Your task to perform on an android device: Show me popular videos on Youtube Image 0: 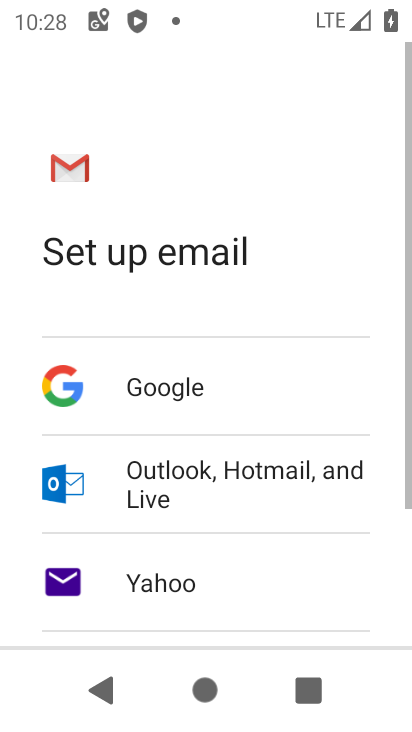
Step 0: press home button
Your task to perform on an android device: Show me popular videos on Youtube Image 1: 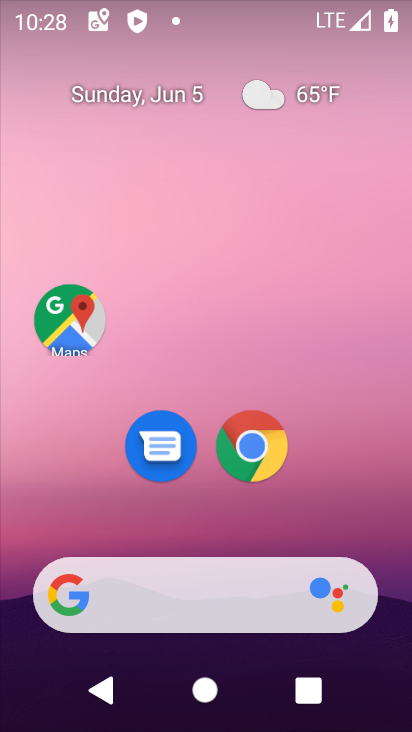
Step 1: drag from (230, 530) to (195, 87)
Your task to perform on an android device: Show me popular videos on Youtube Image 2: 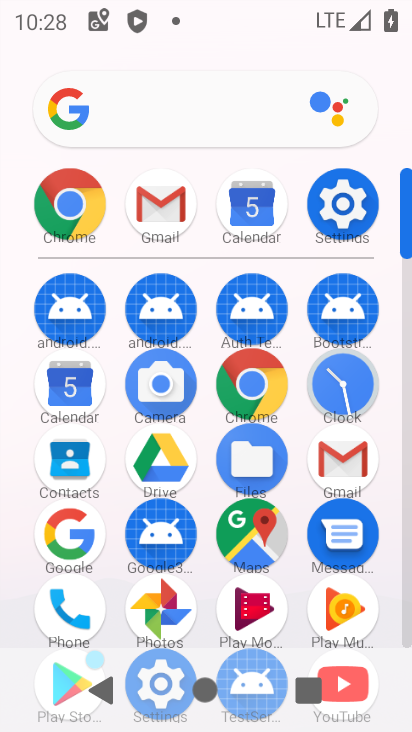
Step 2: drag from (282, 500) to (235, 148)
Your task to perform on an android device: Show me popular videos on Youtube Image 3: 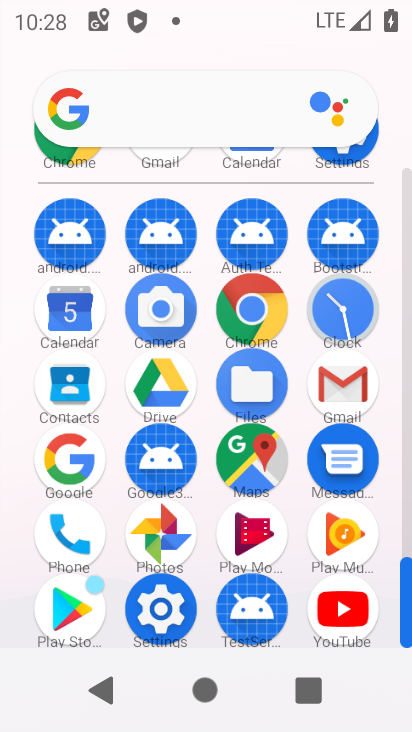
Step 3: click (338, 619)
Your task to perform on an android device: Show me popular videos on Youtube Image 4: 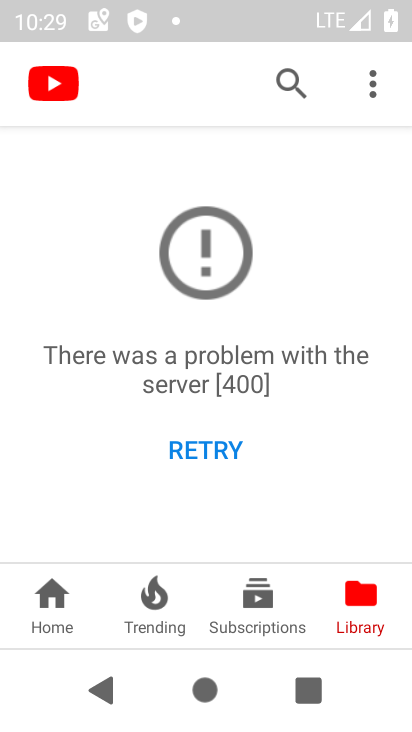
Step 4: task complete